Your task to perform on an android device: toggle data saver in the chrome app Image 0: 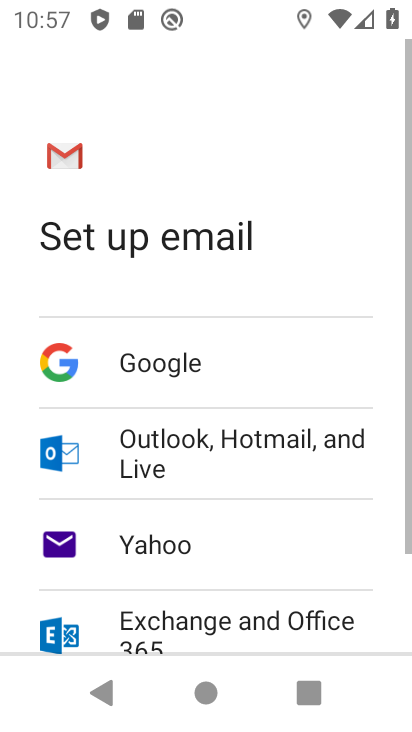
Step 0: press home button
Your task to perform on an android device: toggle data saver in the chrome app Image 1: 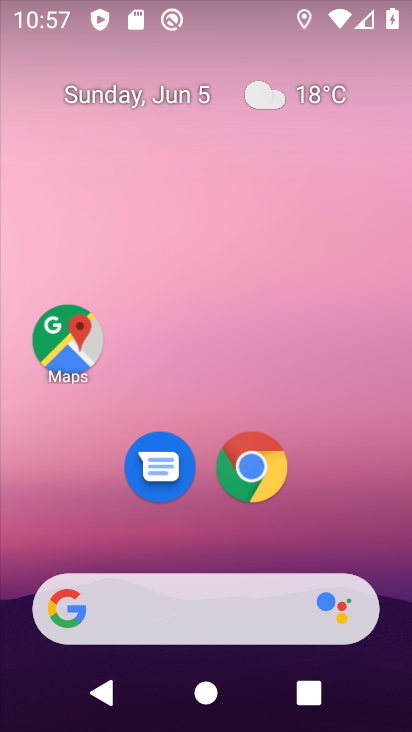
Step 1: click (263, 495)
Your task to perform on an android device: toggle data saver in the chrome app Image 2: 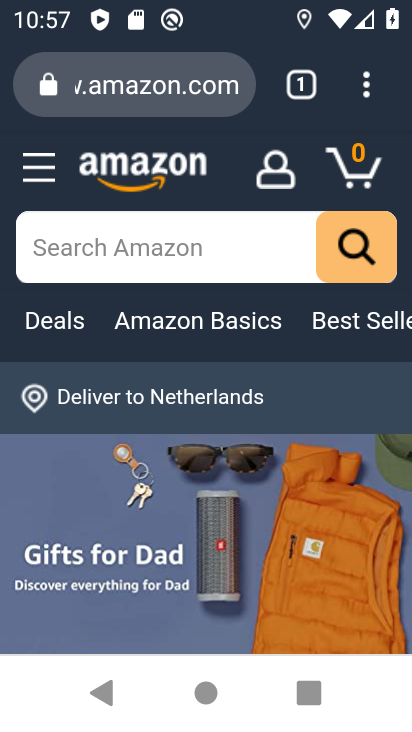
Step 2: click (345, 113)
Your task to perform on an android device: toggle data saver in the chrome app Image 3: 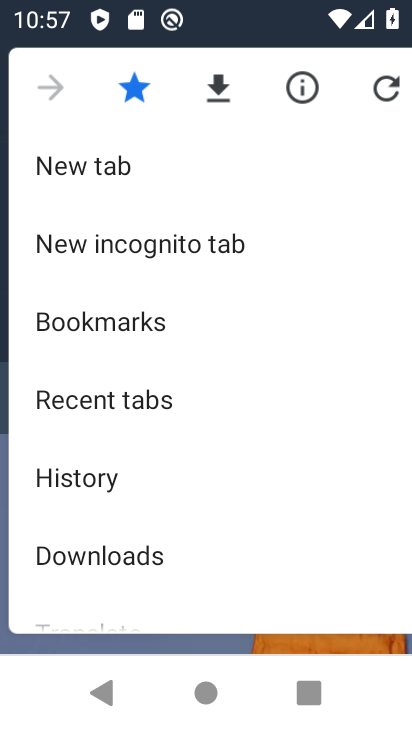
Step 3: drag from (301, 582) to (226, 124)
Your task to perform on an android device: toggle data saver in the chrome app Image 4: 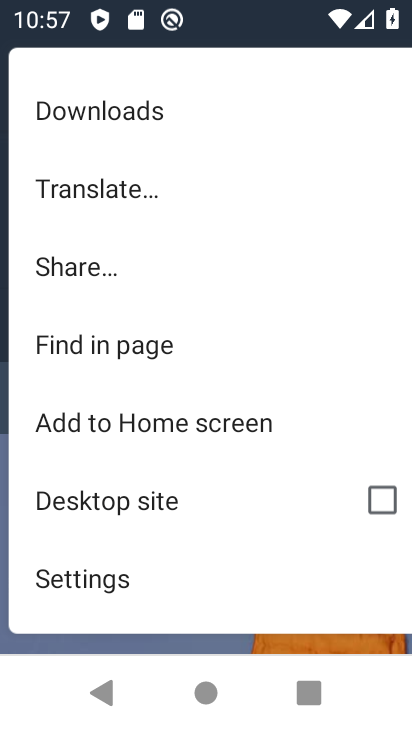
Step 4: click (91, 548)
Your task to perform on an android device: toggle data saver in the chrome app Image 5: 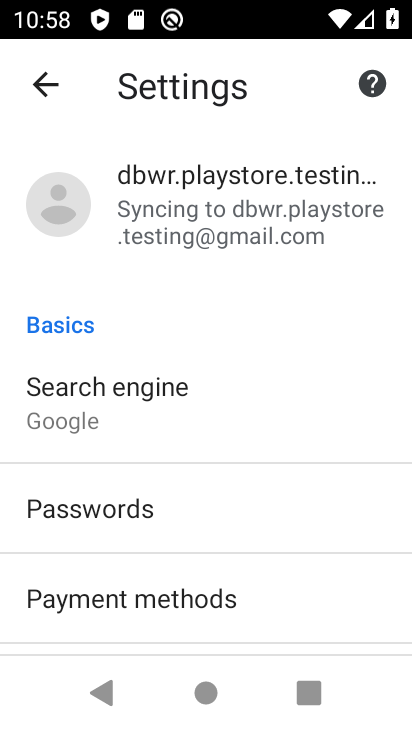
Step 5: drag from (87, 547) to (46, 135)
Your task to perform on an android device: toggle data saver in the chrome app Image 6: 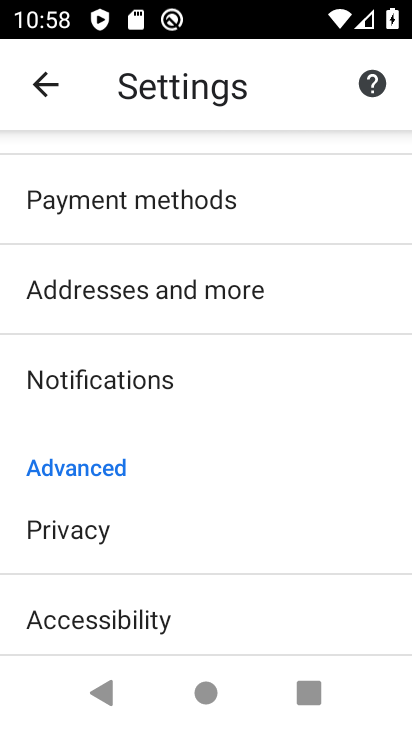
Step 6: drag from (172, 564) to (81, 148)
Your task to perform on an android device: toggle data saver in the chrome app Image 7: 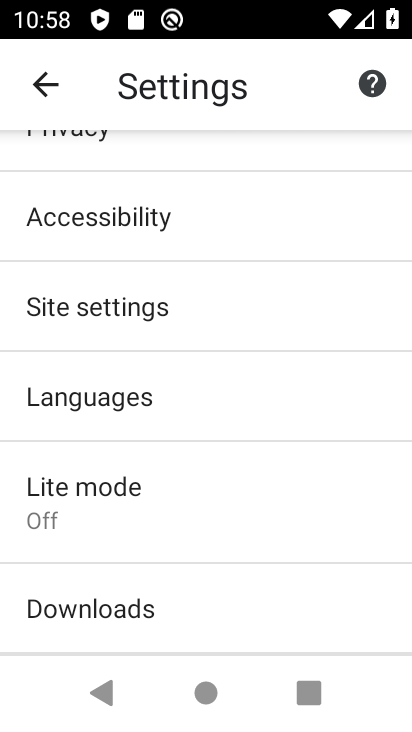
Step 7: click (99, 494)
Your task to perform on an android device: toggle data saver in the chrome app Image 8: 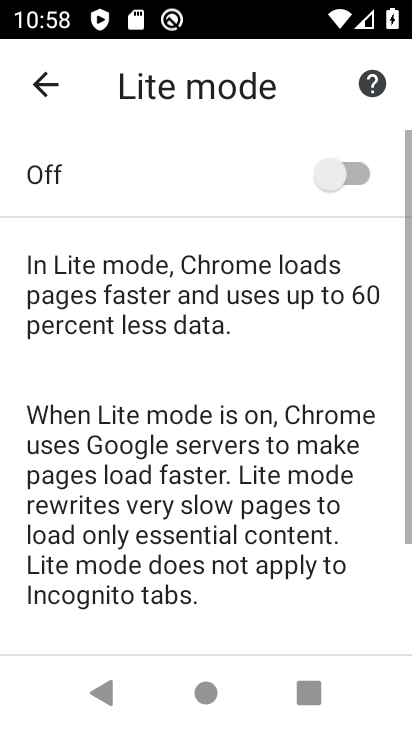
Step 8: click (323, 190)
Your task to perform on an android device: toggle data saver in the chrome app Image 9: 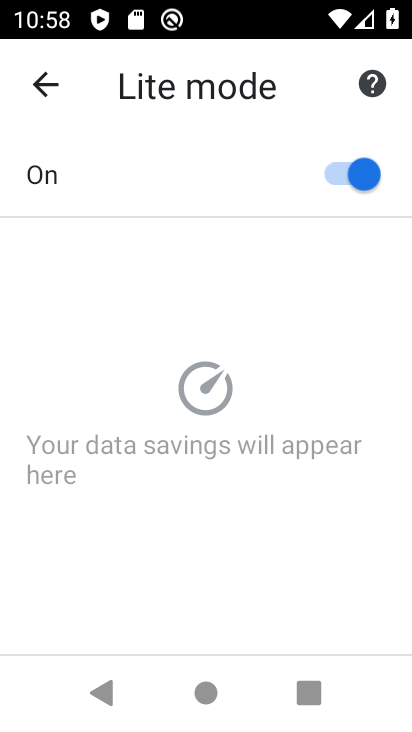
Step 9: task complete